Your task to perform on an android device: turn on location history Image 0: 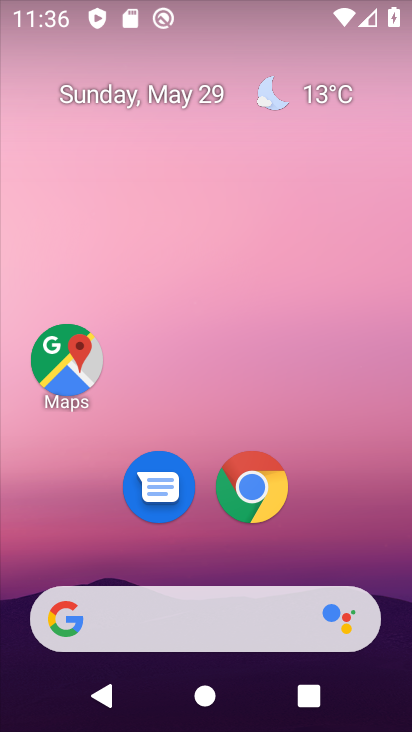
Step 0: drag from (336, 497) to (327, 55)
Your task to perform on an android device: turn on location history Image 1: 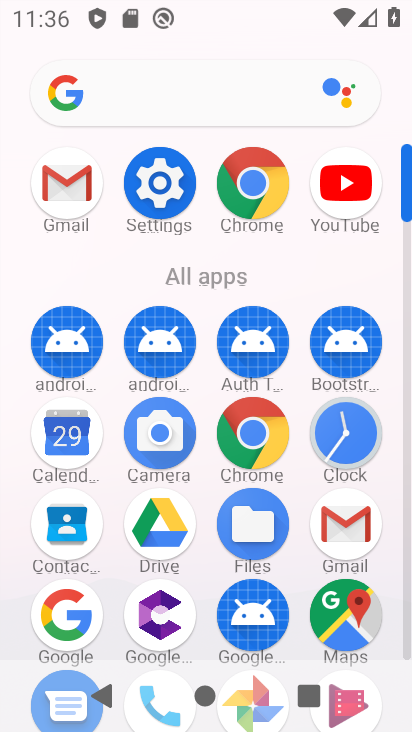
Step 1: click (171, 176)
Your task to perform on an android device: turn on location history Image 2: 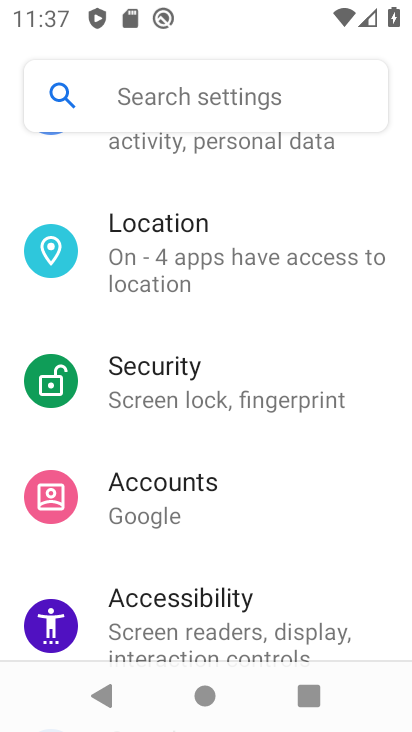
Step 2: click (189, 271)
Your task to perform on an android device: turn on location history Image 3: 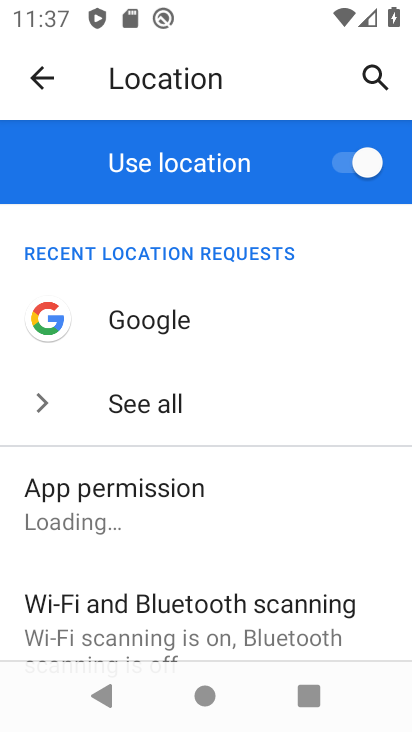
Step 3: drag from (216, 596) to (194, 365)
Your task to perform on an android device: turn on location history Image 4: 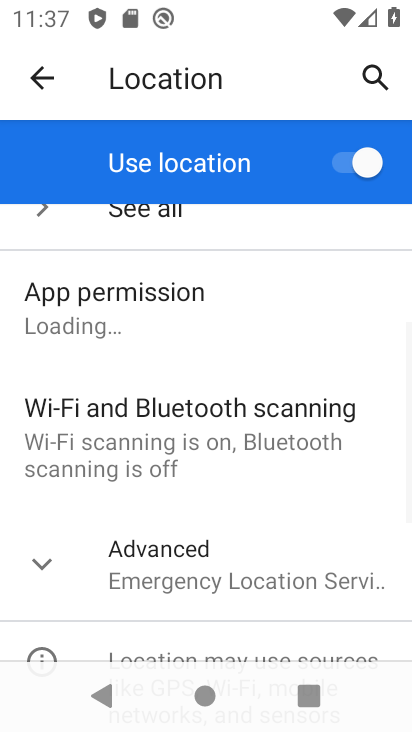
Step 4: click (190, 562)
Your task to perform on an android device: turn on location history Image 5: 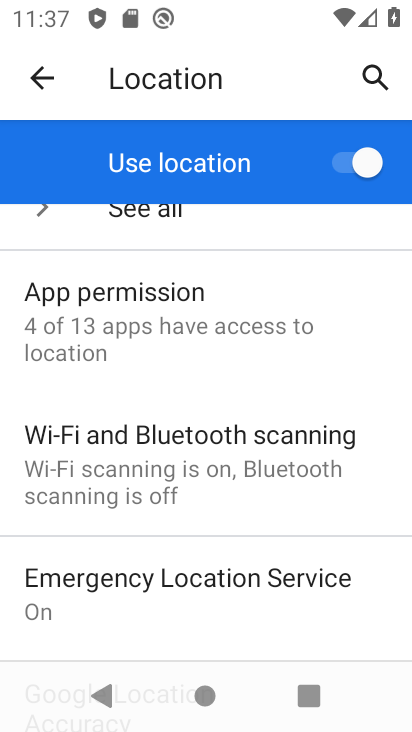
Step 5: drag from (170, 591) to (163, 314)
Your task to perform on an android device: turn on location history Image 6: 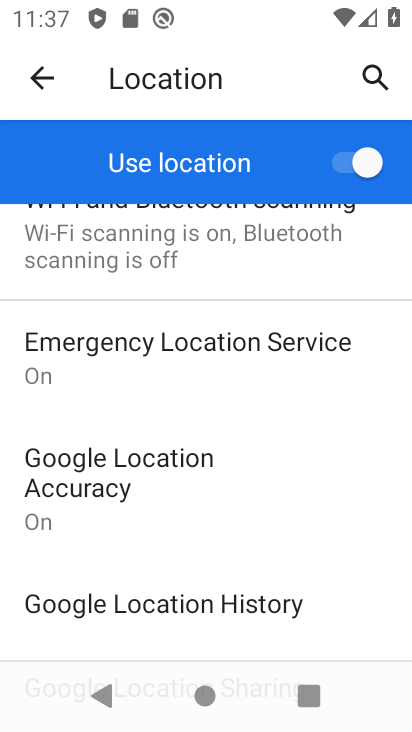
Step 6: click (155, 613)
Your task to perform on an android device: turn on location history Image 7: 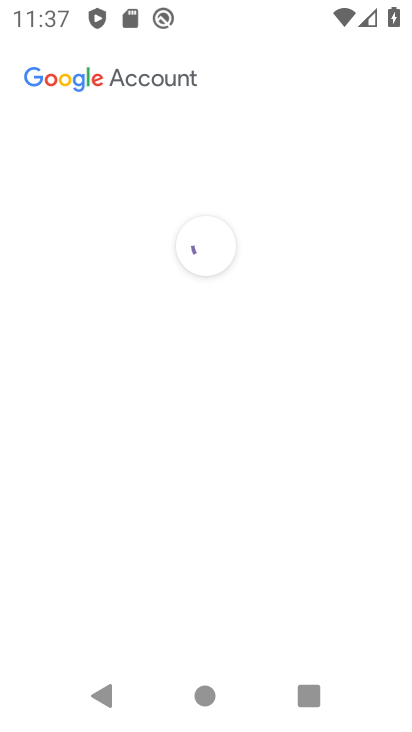
Step 7: drag from (179, 570) to (168, 330)
Your task to perform on an android device: turn on location history Image 8: 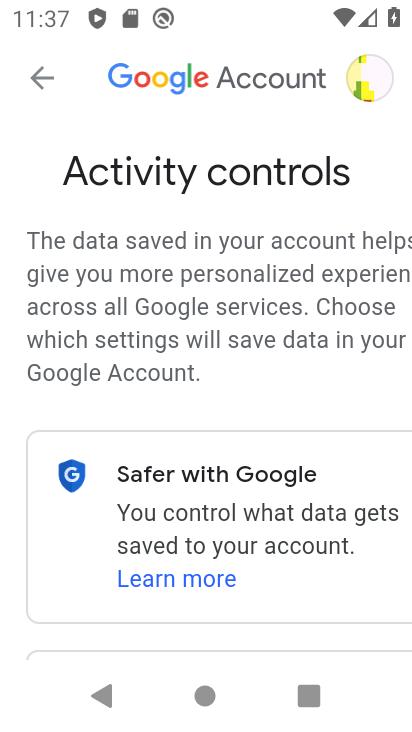
Step 8: drag from (187, 546) to (203, 217)
Your task to perform on an android device: turn on location history Image 9: 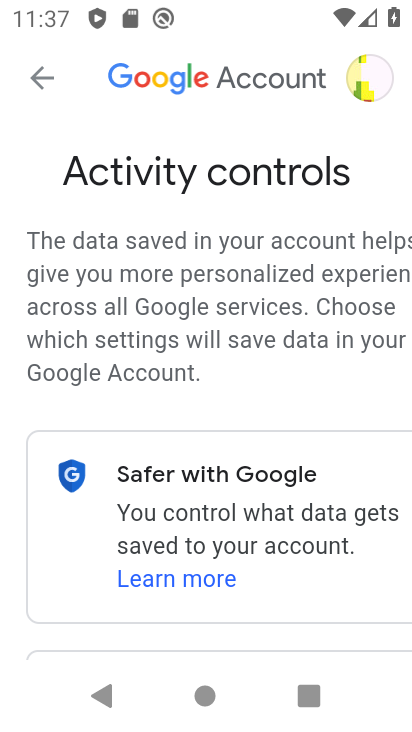
Step 9: drag from (277, 592) to (266, 260)
Your task to perform on an android device: turn on location history Image 10: 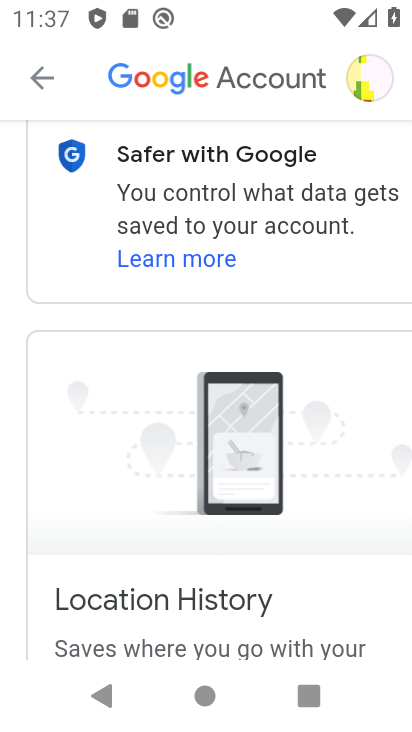
Step 10: drag from (256, 577) to (256, 229)
Your task to perform on an android device: turn on location history Image 11: 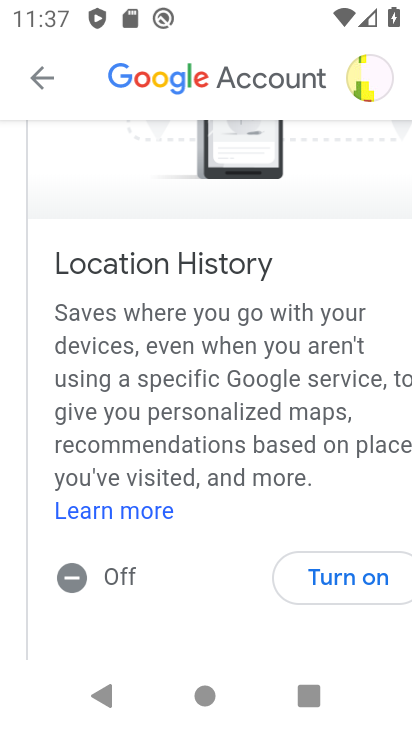
Step 11: click (335, 588)
Your task to perform on an android device: turn on location history Image 12: 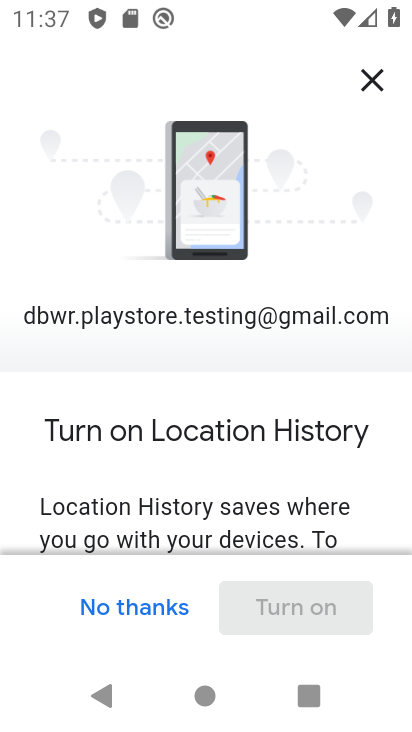
Step 12: drag from (228, 540) to (242, 142)
Your task to perform on an android device: turn on location history Image 13: 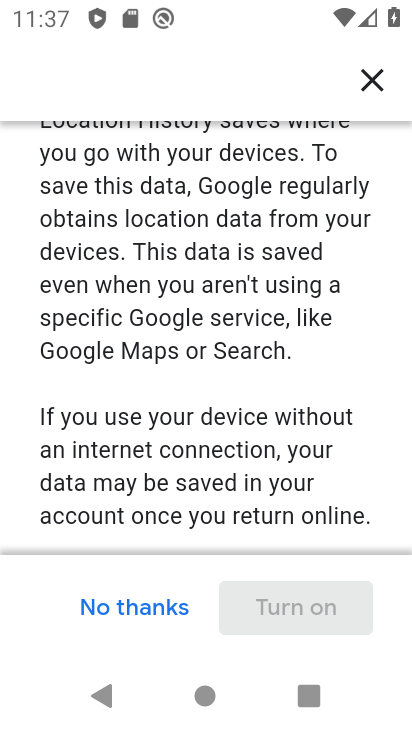
Step 13: drag from (263, 536) to (242, 193)
Your task to perform on an android device: turn on location history Image 14: 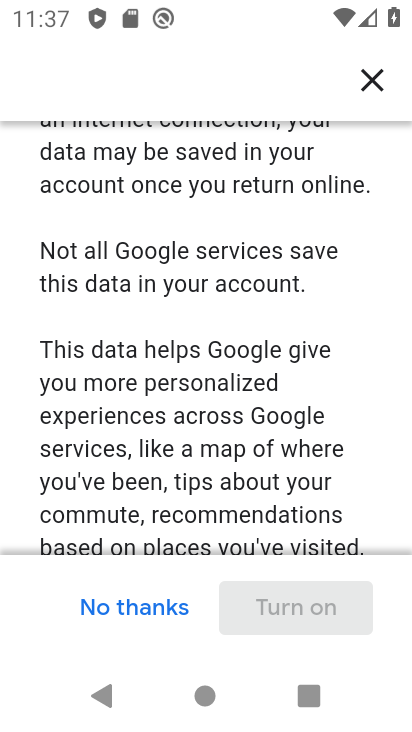
Step 14: drag from (209, 523) to (221, 233)
Your task to perform on an android device: turn on location history Image 15: 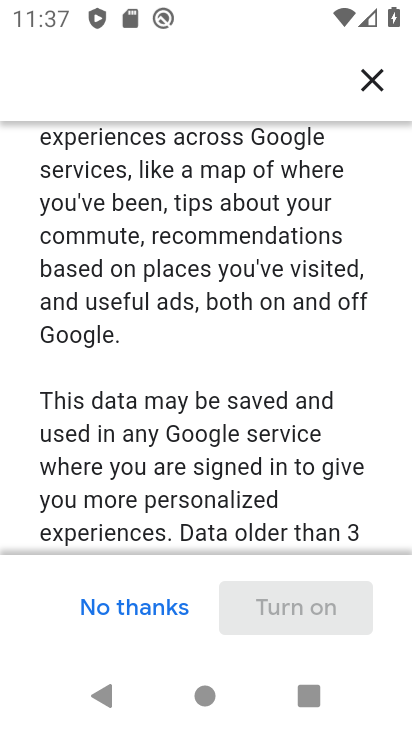
Step 15: drag from (209, 507) to (228, 174)
Your task to perform on an android device: turn on location history Image 16: 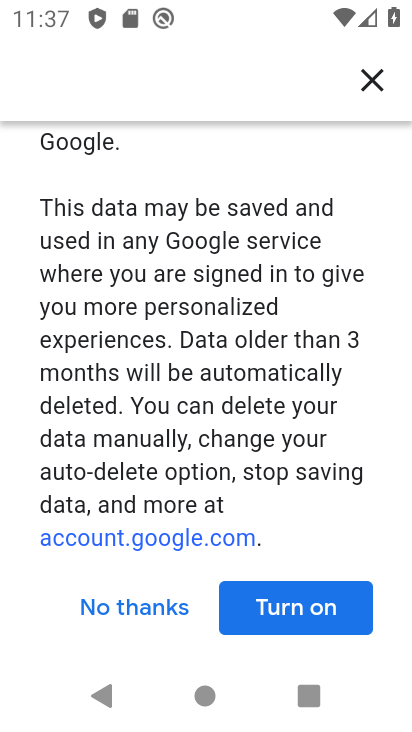
Step 16: drag from (204, 521) to (217, 296)
Your task to perform on an android device: turn on location history Image 17: 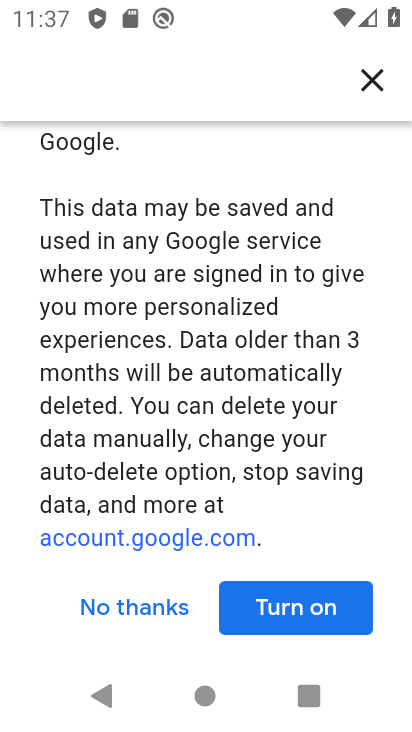
Step 17: click (250, 634)
Your task to perform on an android device: turn on location history Image 18: 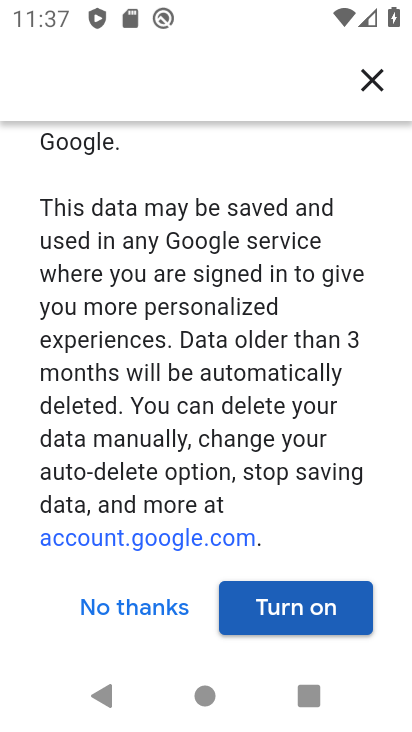
Step 18: click (249, 625)
Your task to perform on an android device: turn on location history Image 19: 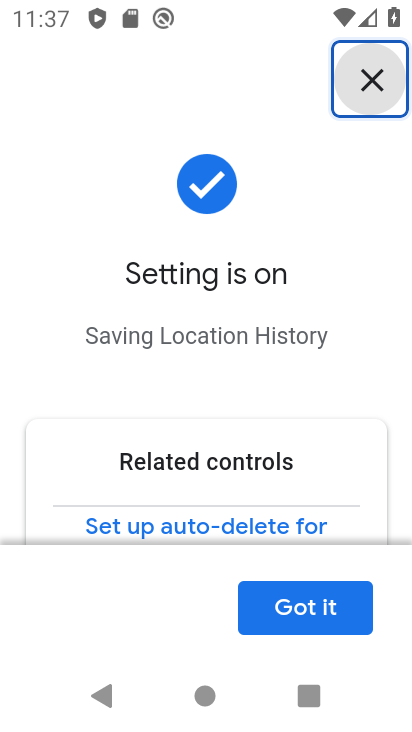
Step 19: click (249, 625)
Your task to perform on an android device: turn on location history Image 20: 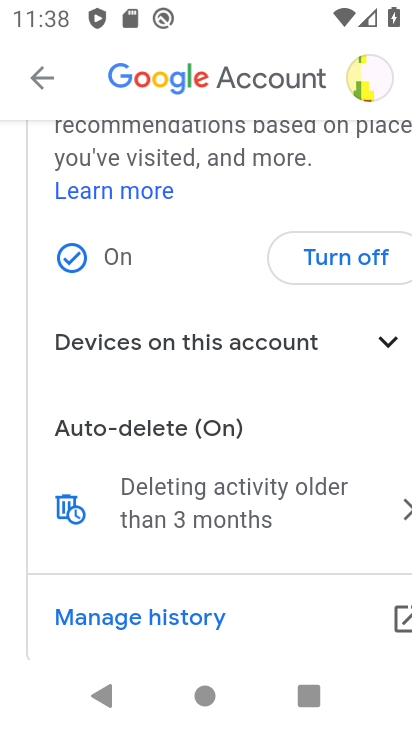
Step 20: task complete